Your task to perform on an android device: What is the news today? Image 0: 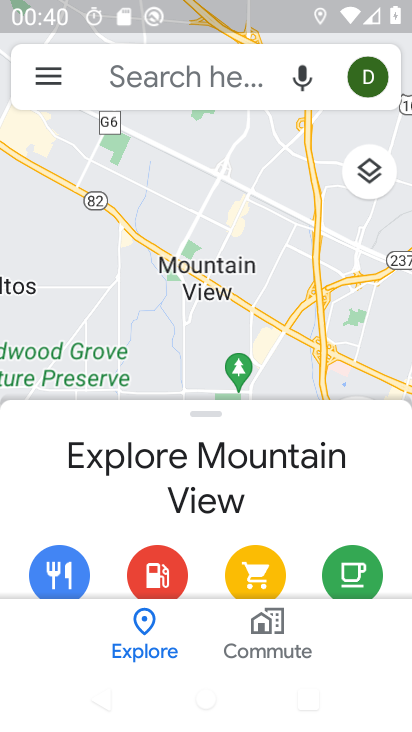
Step 0: press home button
Your task to perform on an android device: What is the news today? Image 1: 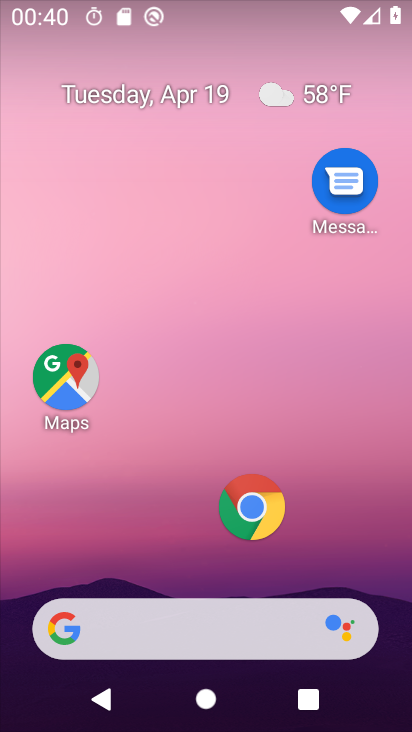
Step 1: click (168, 629)
Your task to perform on an android device: What is the news today? Image 2: 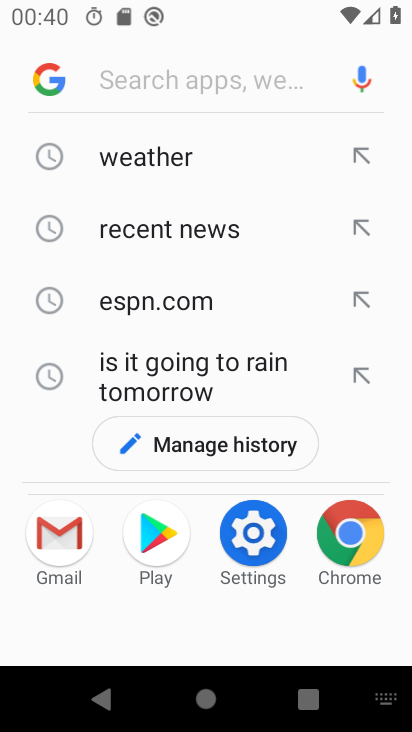
Step 2: type "news today?"
Your task to perform on an android device: What is the news today? Image 3: 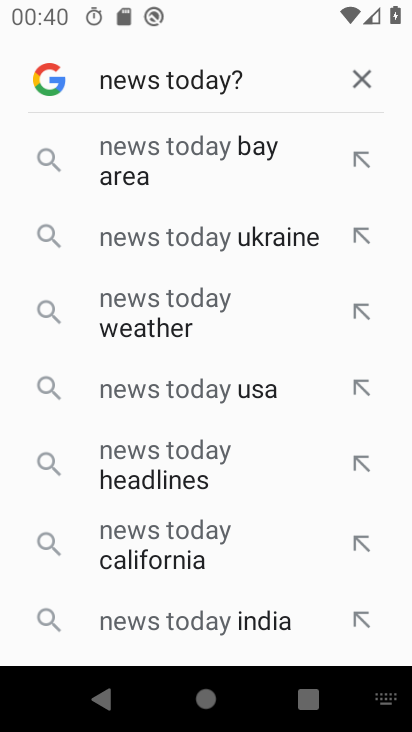
Step 3: click (161, 136)
Your task to perform on an android device: What is the news today? Image 4: 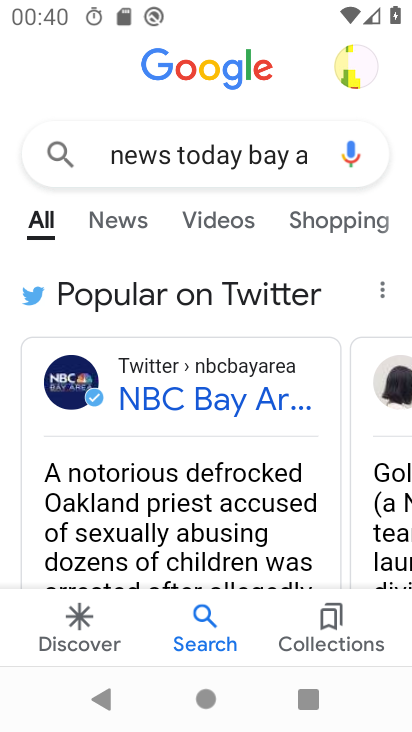
Step 4: task complete